Your task to perform on an android device: Go to Amazon Image 0: 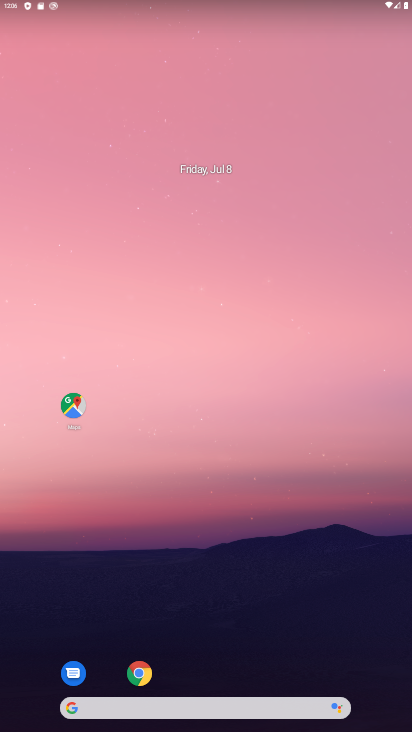
Step 0: click (140, 674)
Your task to perform on an android device: Go to Amazon Image 1: 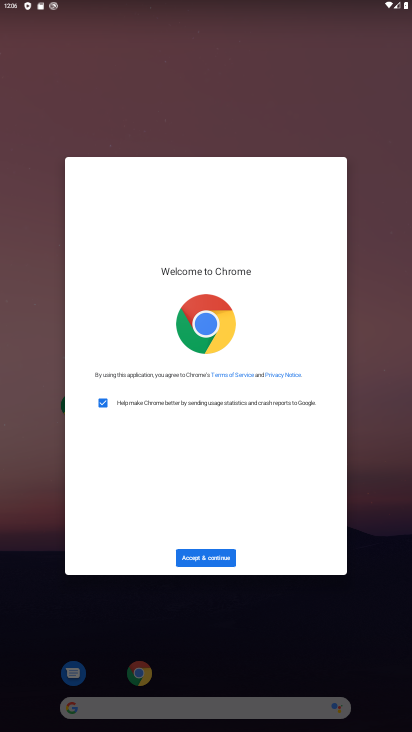
Step 1: click (214, 559)
Your task to perform on an android device: Go to Amazon Image 2: 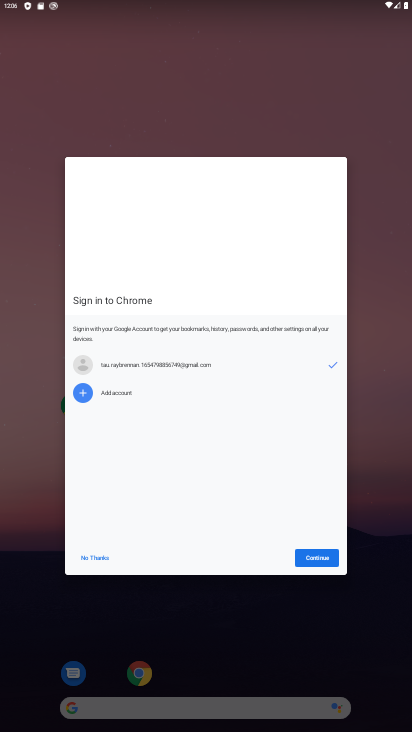
Step 2: click (313, 558)
Your task to perform on an android device: Go to Amazon Image 3: 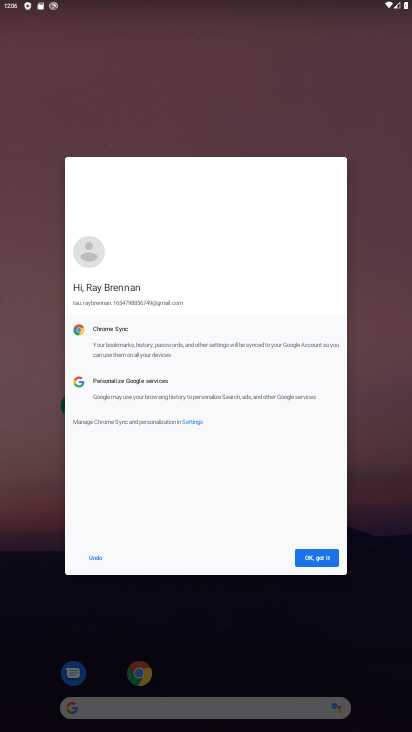
Step 3: click (313, 558)
Your task to perform on an android device: Go to Amazon Image 4: 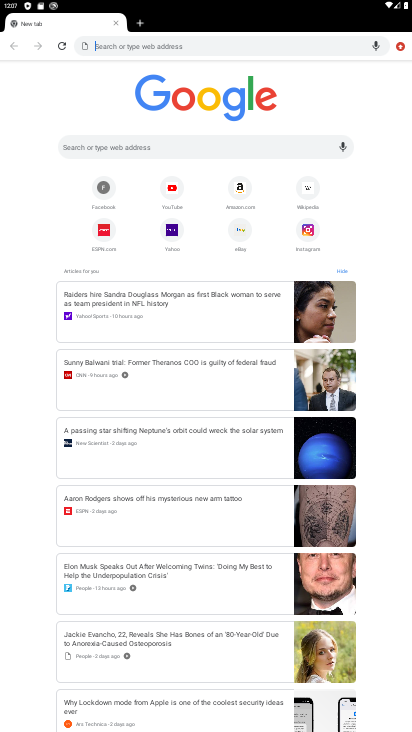
Step 4: click (240, 184)
Your task to perform on an android device: Go to Amazon Image 5: 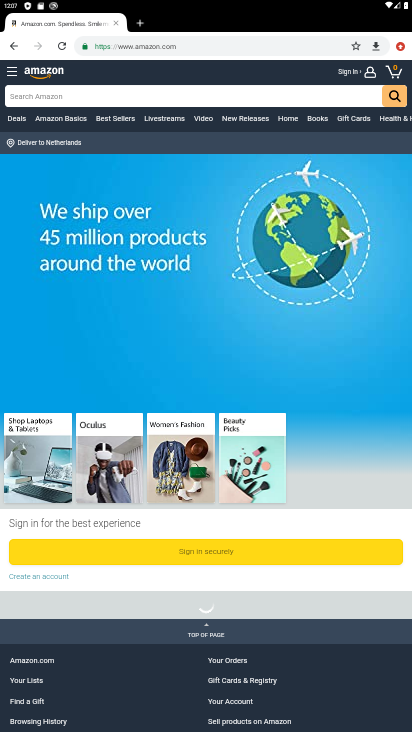
Step 5: task complete